Your task to perform on an android device: Open the stopwatch Image 0: 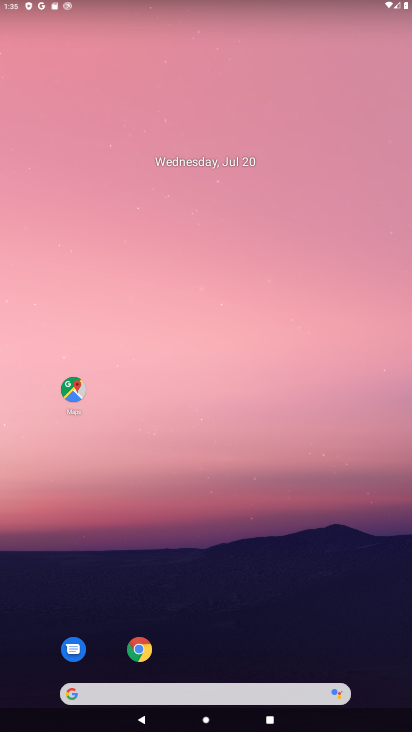
Step 0: drag from (271, 610) to (210, 267)
Your task to perform on an android device: Open the stopwatch Image 1: 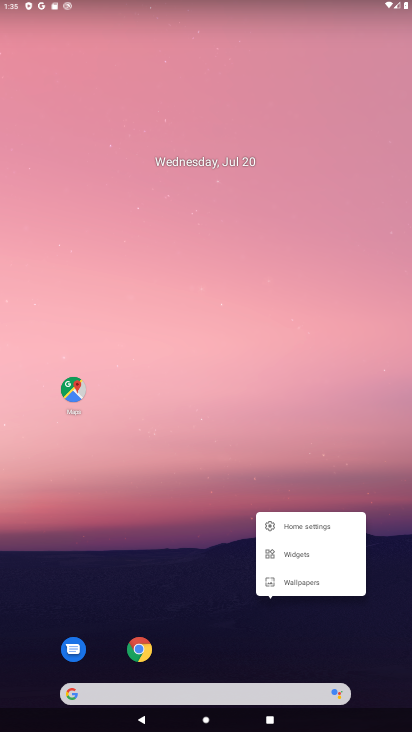
Step 1: drag from (209, 657) to (130, 227)
Your task to perform on an android device: Open the stopwatch Image 2: 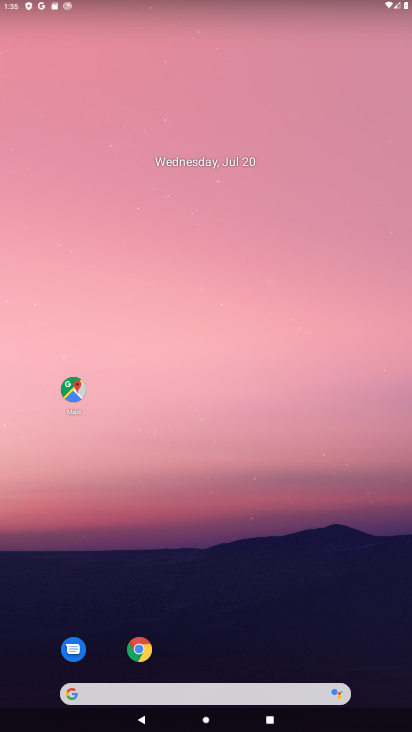
Step 2: drag from (388, 660) to (260, 146)
Your task to perform on an android device: Open the stopwatch Image 3: 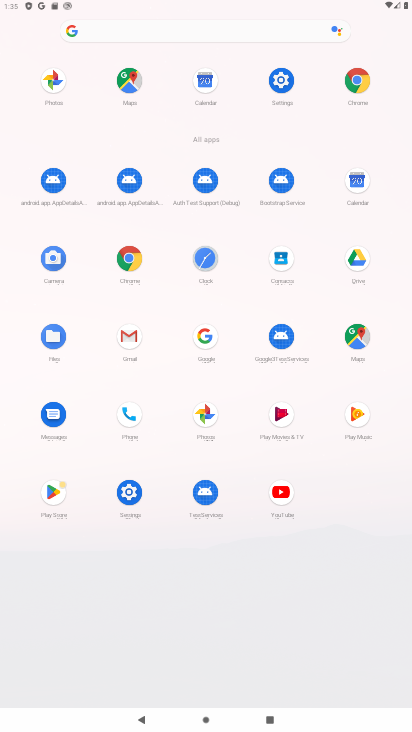
Step 3: click (205, 258)
Your task to perform on an android device: Open the stopwatch Image 4: 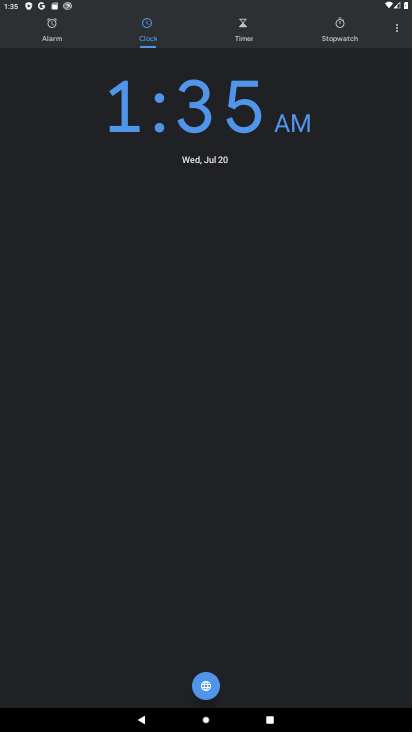
Step 4: click (339, 40)
Your task to perform on an android device: Open the stopwatch Image 5: 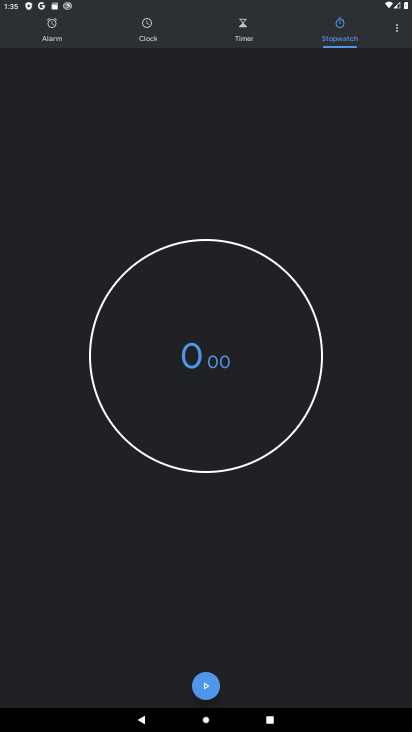
Step 5: task complete